Your task to perform on an android device: toggle notification dots Image 0: 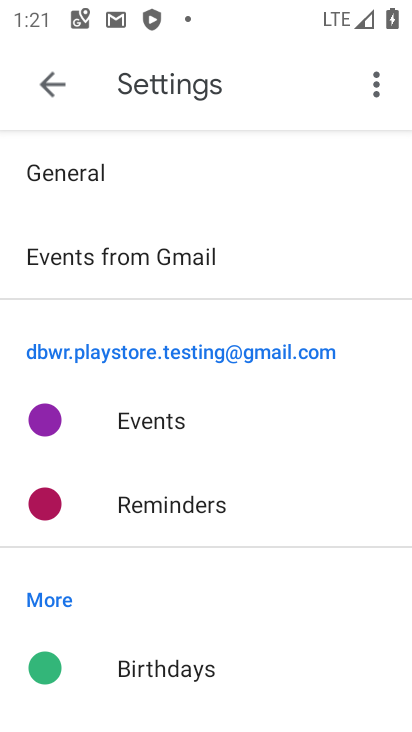
Step 0: press home button
Your task to perform on an android device: toggle notification dots Image 1: 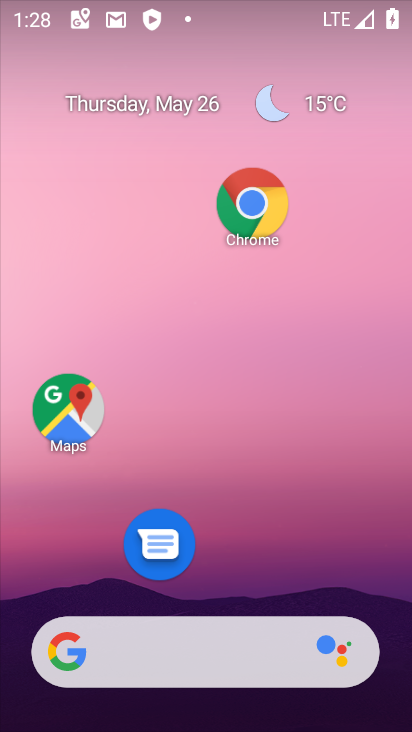
Step 1: drag from (198, 502) to (344, 8)
Your task to perform on an android device: toggle notification dots Image 2: 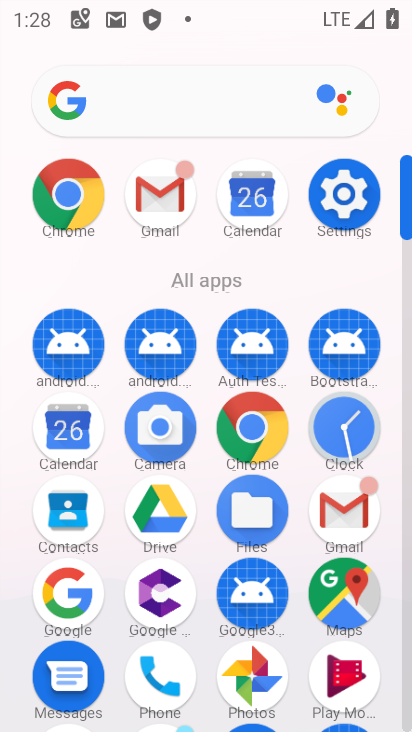
Step 2: click (358, 199)
Your task to perform on an android device: toggle notification dots Image 3: 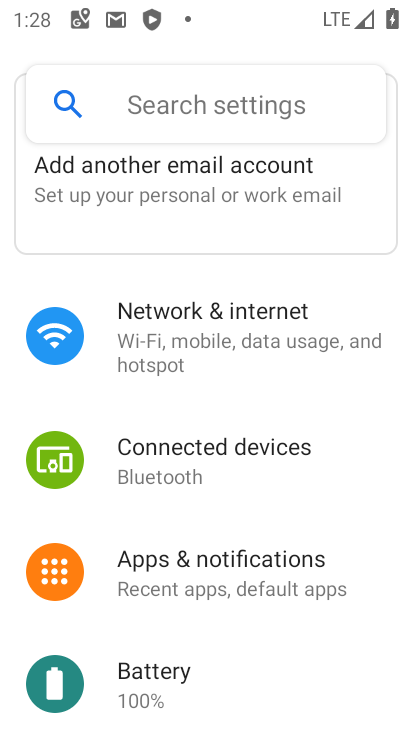
Step 3: click (304, 586)
Your task to perform on an android device: toggle notification dots Image 4: 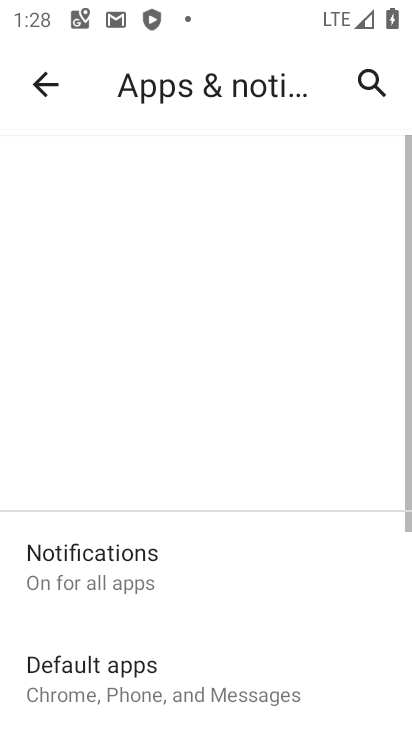
Step 4: drag from (267, 614) to (289, 196)
Your task to perform on an android device: toggle notification dots Image 5: 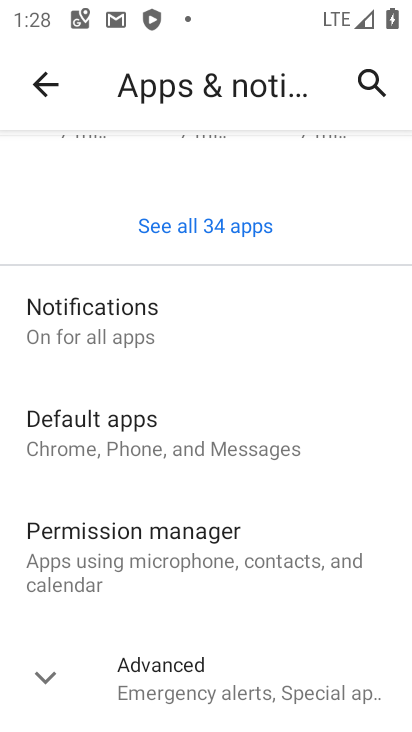
Step 5: drag from (259, 389) to (300, 128)
Your task to perform on an android device: toggle notification dots Image 6: 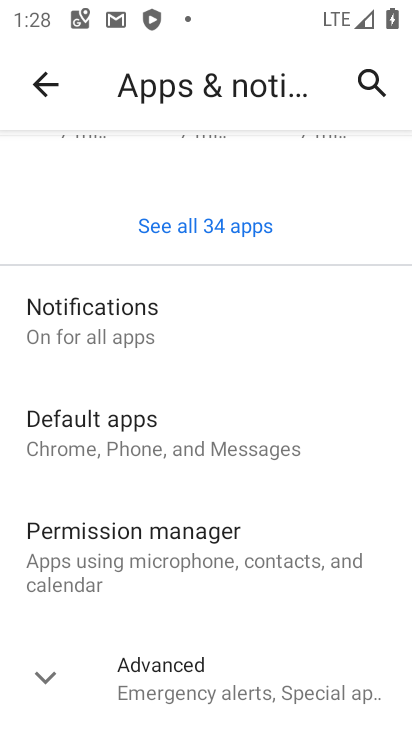
Step 6: click (325, 286)
Your task to perform on an android device: toggle notification dots Image 7: 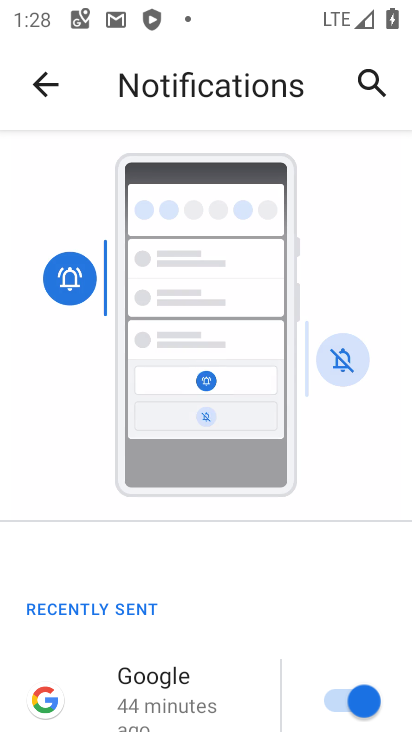
Step 7: drag from (149, 658) to (124, 593)
Your task to perform on an android device: toggle notification dots Image 8: 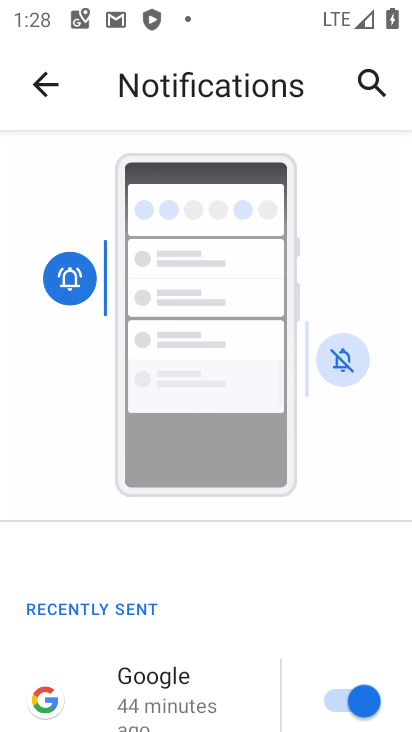
Step 8: drag from (184, 84) to (247, 21)
Your task to perform on an android device: toggle notification dots Image 9: 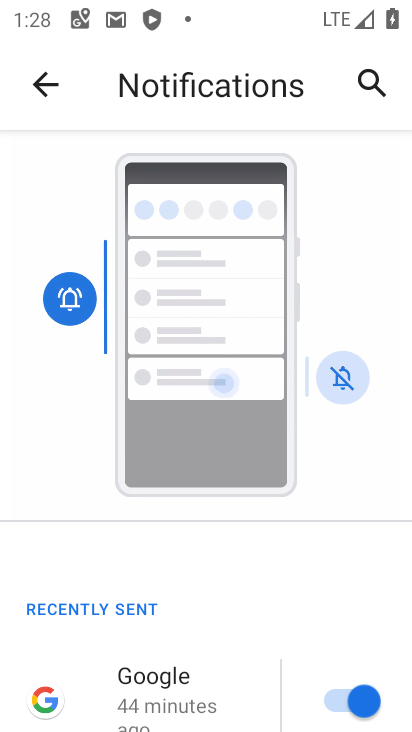
Step 9: drag from (184, 629) to (309, 61)
Your task to perform on an android device: toggle notification dots Image 10: 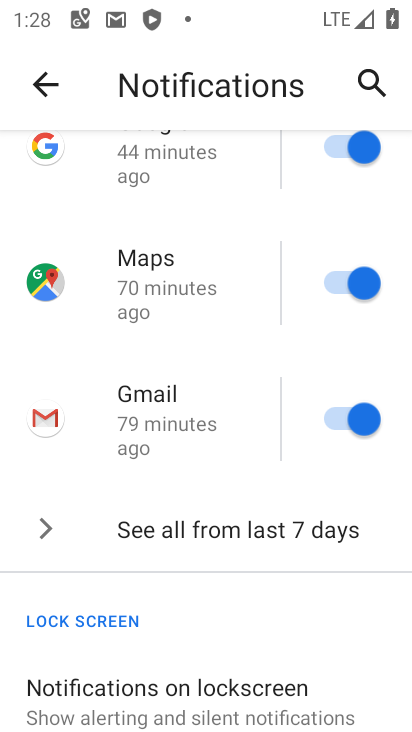
Step 10: drag from (225, 618) to (310, 40)
Your task to perform on an android device: toggle notification dots Image 11: 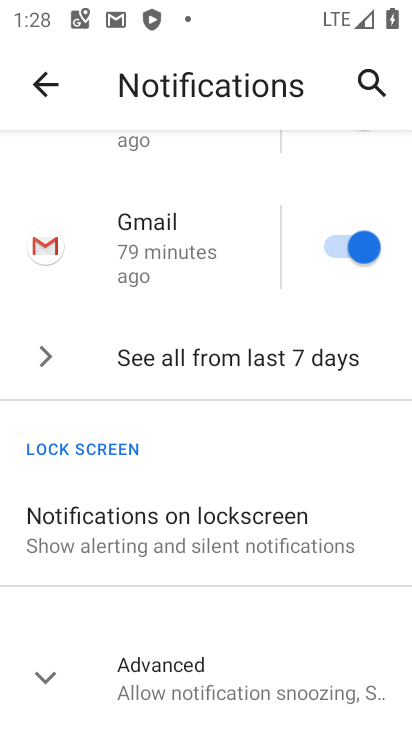
Step 11: click (253, 688)
Your task to perform on an android device: toggle notification dots Image 12: 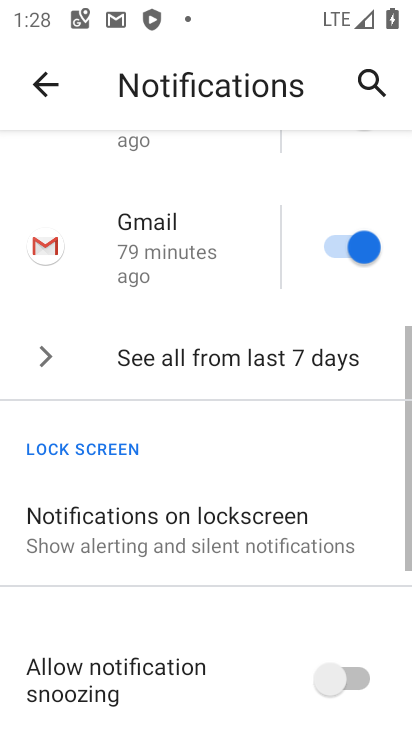
Step 12: drag from (241, 658) to (317, 298)
Your task to perform on an android device: toggle notification dots Image 13: 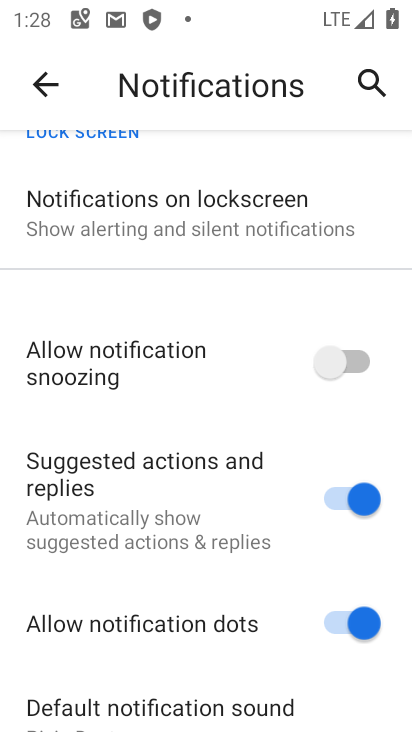
Step 13: click (357, 623)
Your task to perform on an android device: toggle notification dots Image 14: 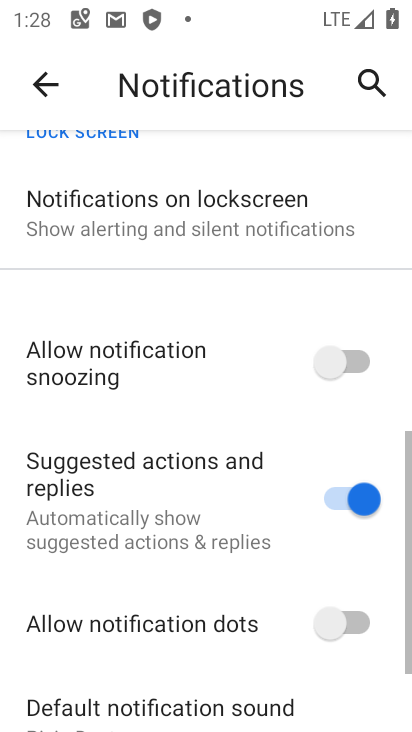
Step 14: task complete